Your task to perform on an android device: Turn off the flashlight Image 0: 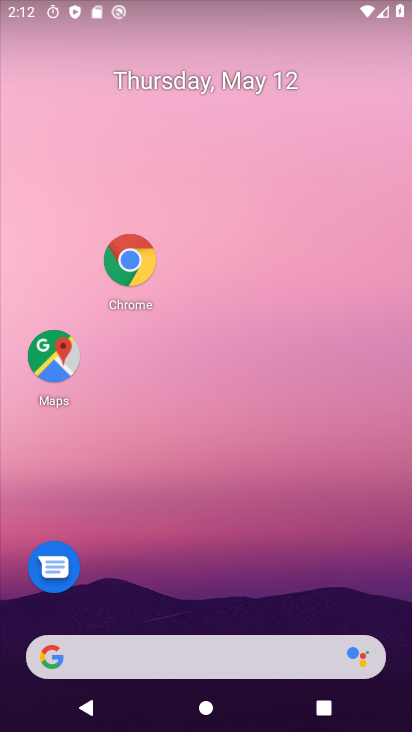
Step 0: drag from (258, 27) to (275, 323)
Your task to perform on an android device: Turn off the flashlight Image 1: 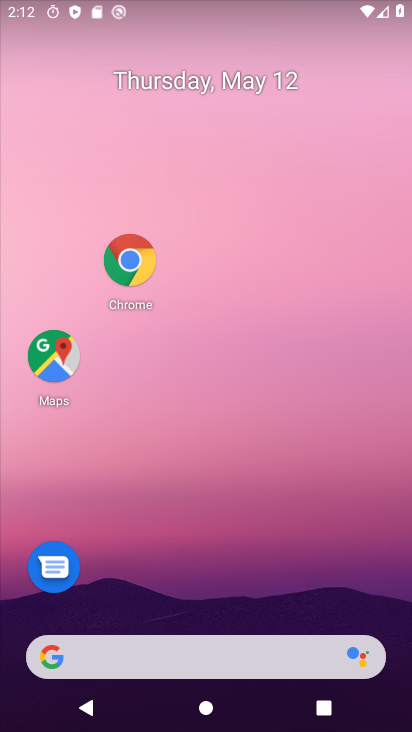
Step 1: drag from (251, 4) to (275, 401)
Your task to perform on an android device: Turn off the flashlight Image 2: 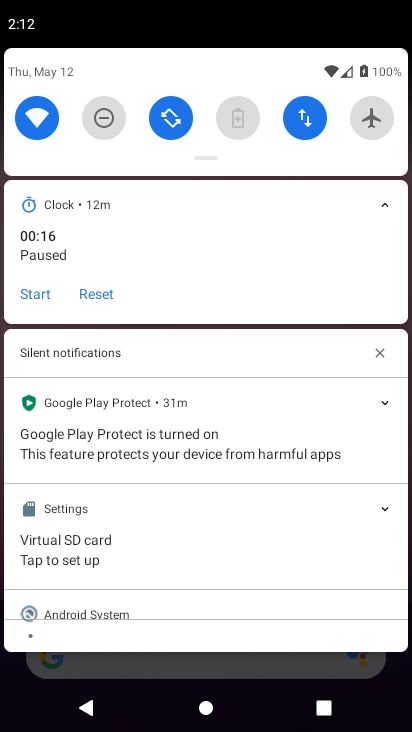
Step 2: drag from (220, 137) to (237, 503)
Your task to perform on an android device: Turn off the flashlight Image 3: 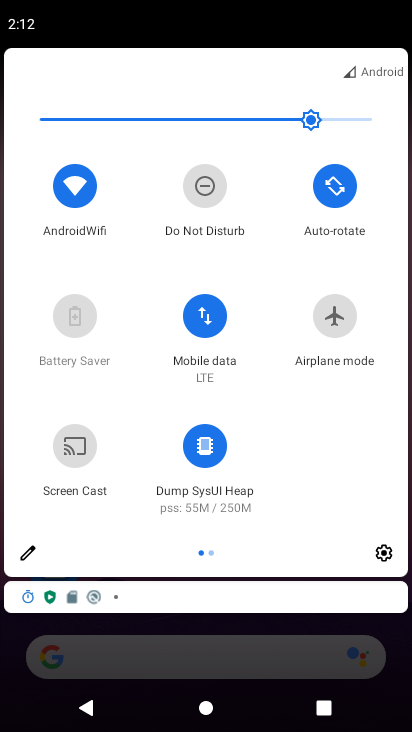
Step 3: drag from (344, 383) to (16, 422)
Your task to perform on an android device: Turn off the flashlight Image 4: 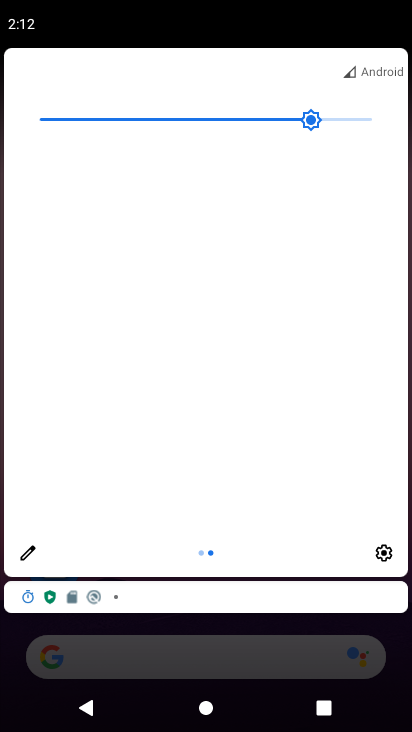
Step 4: click (22, 559)
Your task to perform on an android device: Turn off the flashlight Image 5: 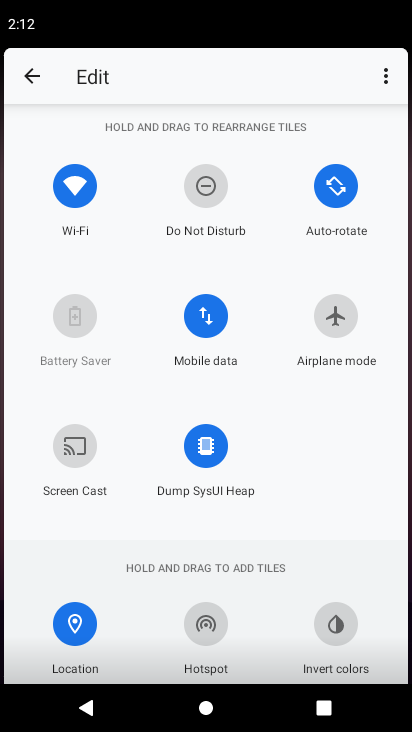
Step 5: task complete